Your task to perform on an android device: stop showing notifications on the lock screen Image 0: 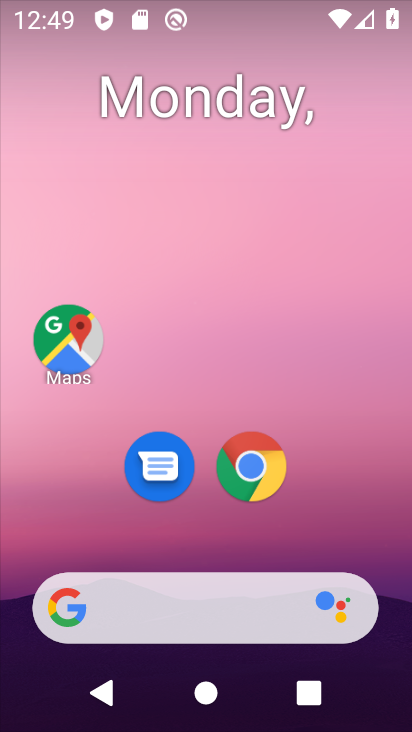
Step 0: drag from (192, 549) to (211, 0)
Your task to perform on an android device: stop showing notifications on the lock screen Image 1: 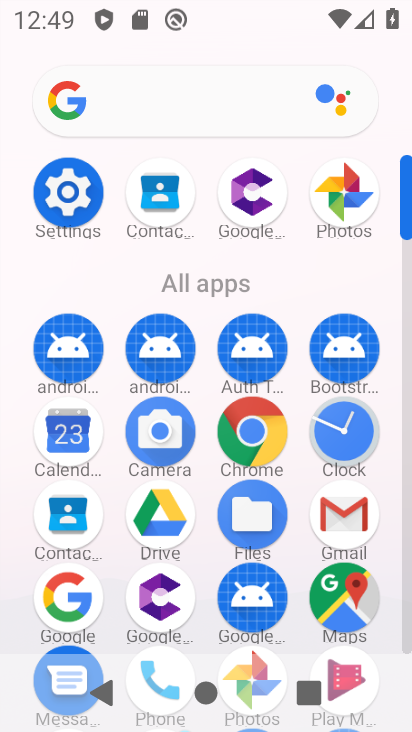
Step 1: click (79, 204)
Your task to perform on an android device: stop showing notifications on the lock screen Image 2: 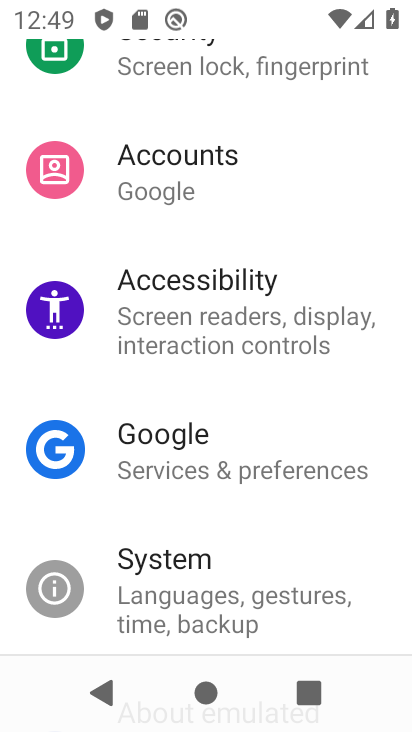
Step 2: drag from (250, 227) to (249, 665)
Your task to perform on an android device: stop showing notifications on the lock screen Image 3: 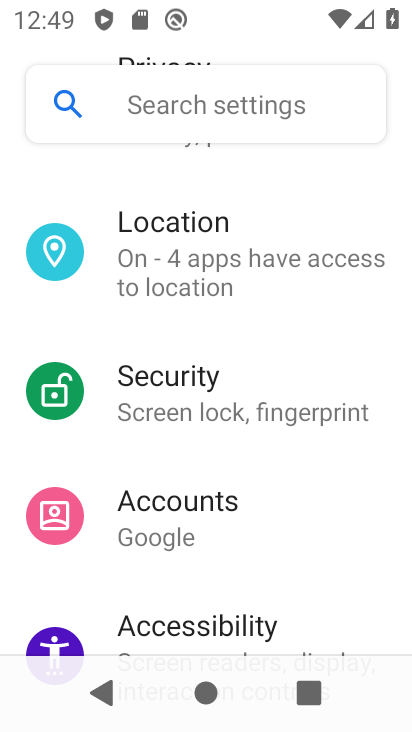
Step 3: drag from (240, 282) to (215, 730)
Your task to perform on an android device: stop showing notifications on the lock screen Image 4: 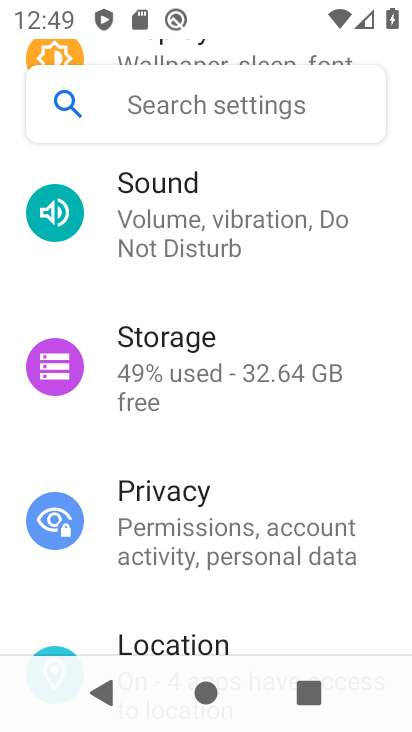
Step 4: click (206, 649)
Your task to perform on an android device: stop showing notifications on the lock screen Image 5: 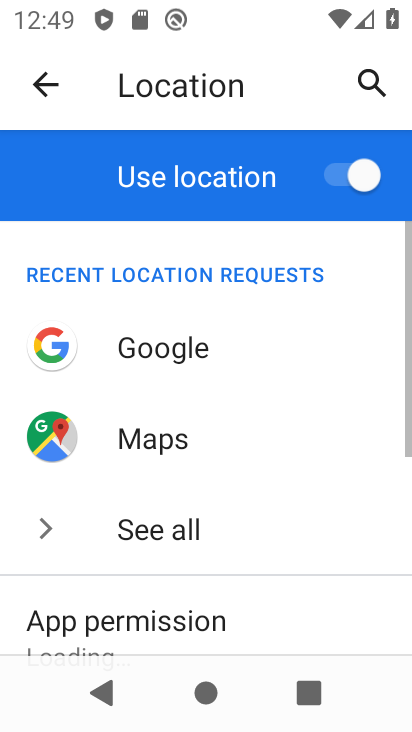
Step 5: click (261, 696)
Your task to perform on an android device: stop showing notifications on the lock screen Image 6: 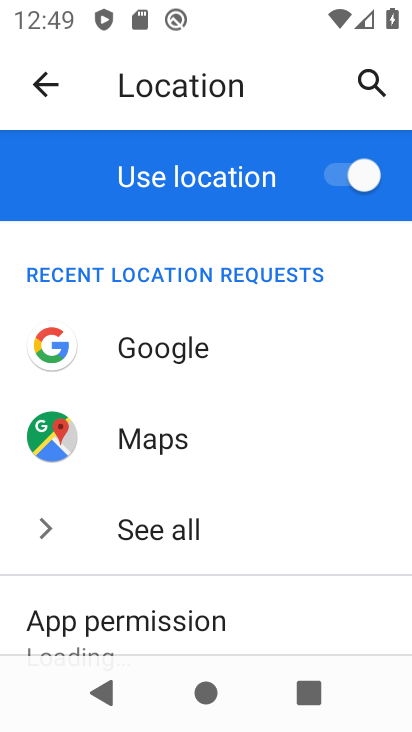
Step 6: click (44, 85)
Your task to perform on an android device: stop showing notifications on the lock screen Image 7: 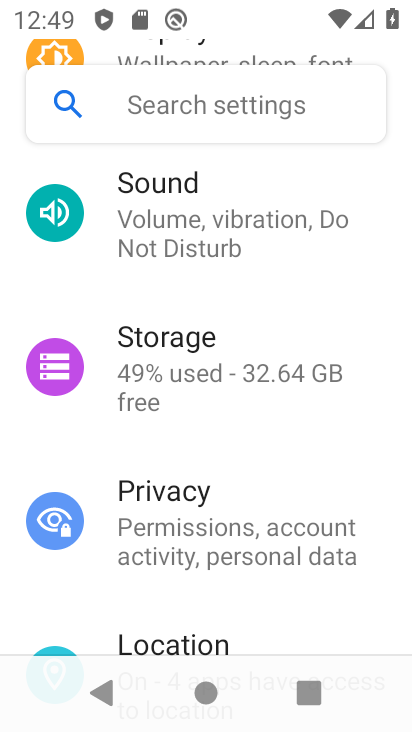
Step 7: click (249, 645)
Your task to perform on an android device: stop showing notifications on the lock screen Image 8: 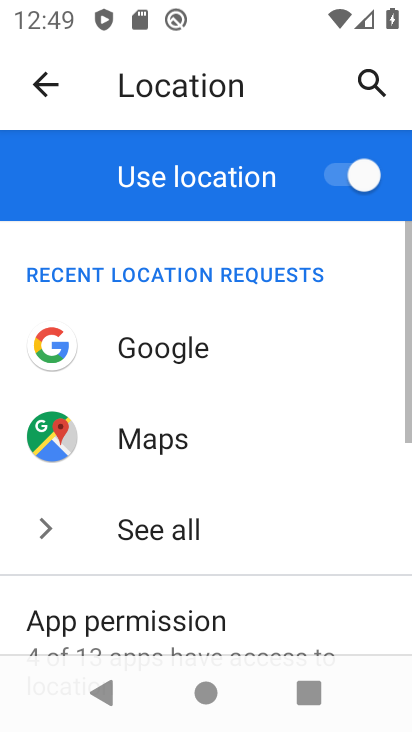
Step 8: click (54, 92)
Your task to perform on an android device: stop showing notifications on the lock screen Image 9: 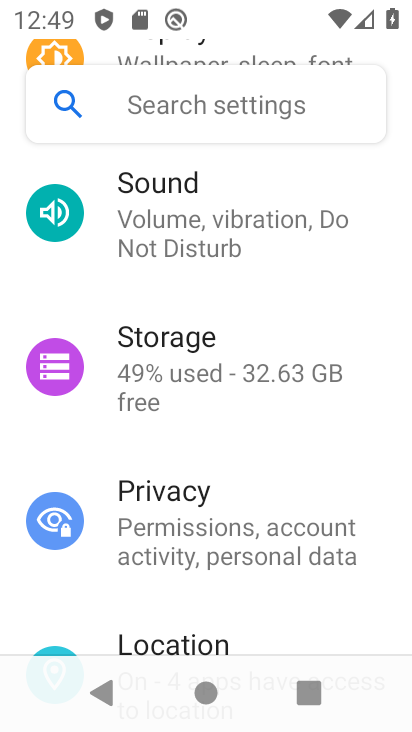
Step 9: drag from (256, 273) to (239, 728)
Your task to perform on an android device: stop showing notifications on the lock screen Image 10: 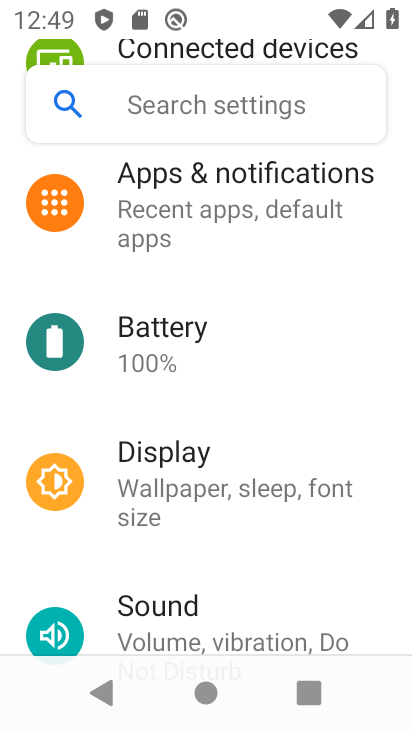
Step 10: click (281, 200)
Your task to perform on an android device: stop showing notifications on the lock screen Image 11: 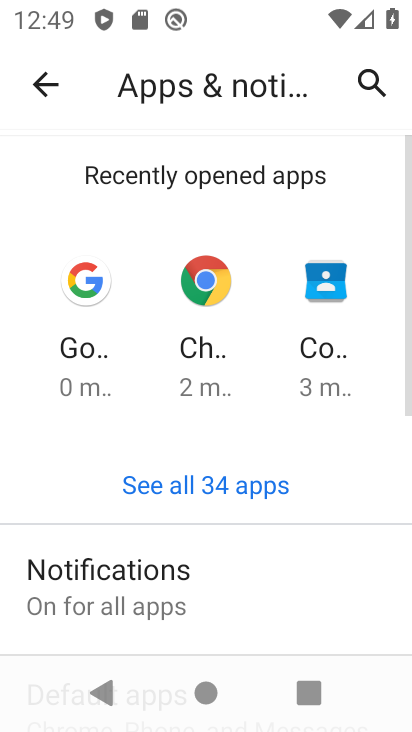
Step 11: click (158, 598)
Your task to perform on an android device: stop showing notifications on the lock screen Image 12: 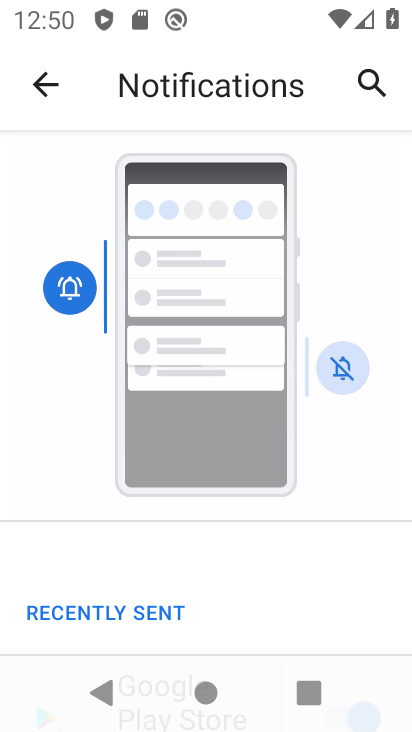
Step 12: drag from (192, 519) to (229, 99)
Your task to perform on an android device: stop showing notifications on the lock screen Image 13: 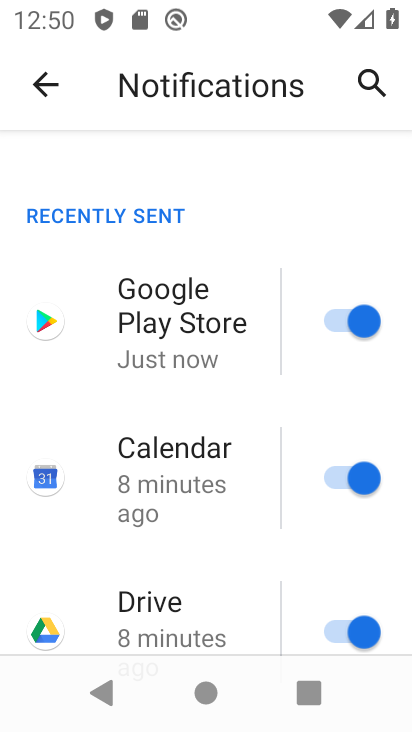
Step 13: drag from (192, 552) to (260, 67)
Your task to perform on an android device: stop showing notifications on the lock screen Image 14: 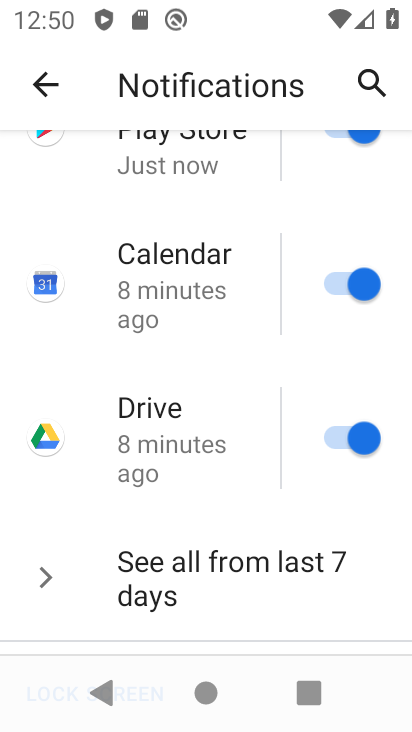
Step 14: drag from (217, 559) to (296, 8)
Your task to perform on an android device: stop showing notifications on the lock screen Image 15: 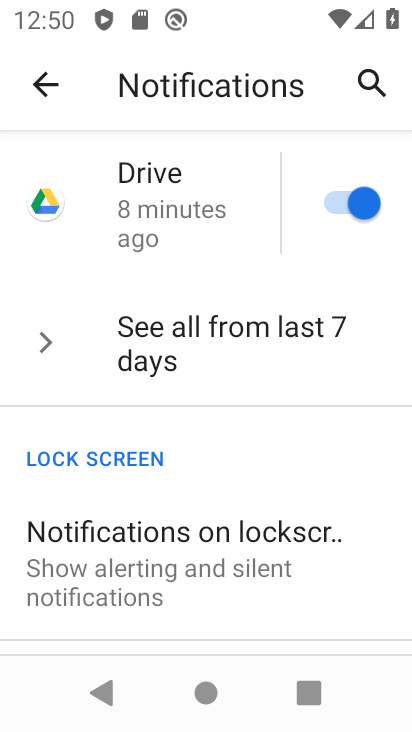
Step 15: click (230, 573)
Your task to perform on an android device: stop showing notifications on the lock screen Image 16: 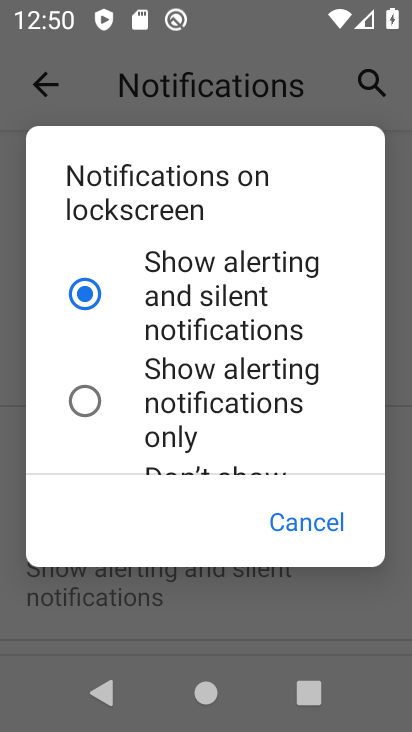
Step 16: drag from (174, 359) to (212, 4)
Your task to perform on an android device: stop showing notifications on the lock screen Image 17: 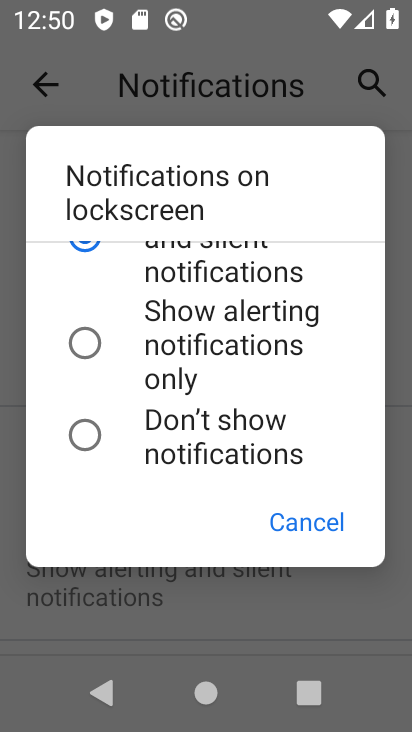
Step 17: click (95, 411)
Your task to perform on an android device: stop showing notifications on the lock screen Image 18: 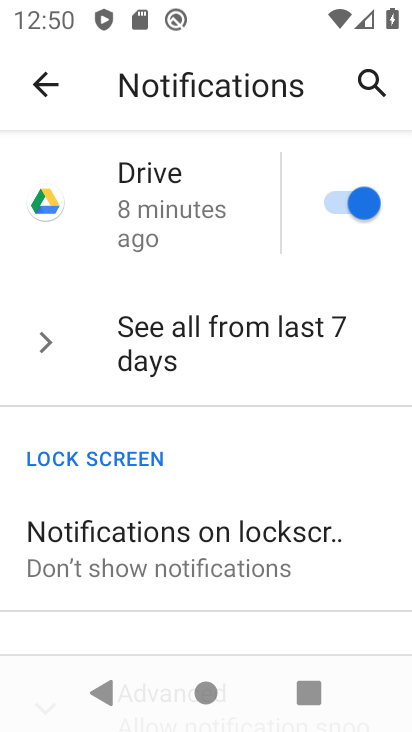
Step 18: task complete